Your task to perform on an android device: Open Chrome and go to settings Image 0: 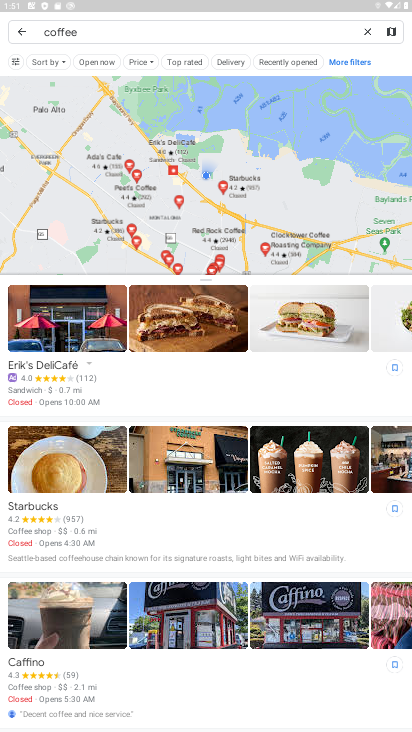
Step 0: press home button
Your task to perform on an android device: Open Chrome and go to settings Image 1: 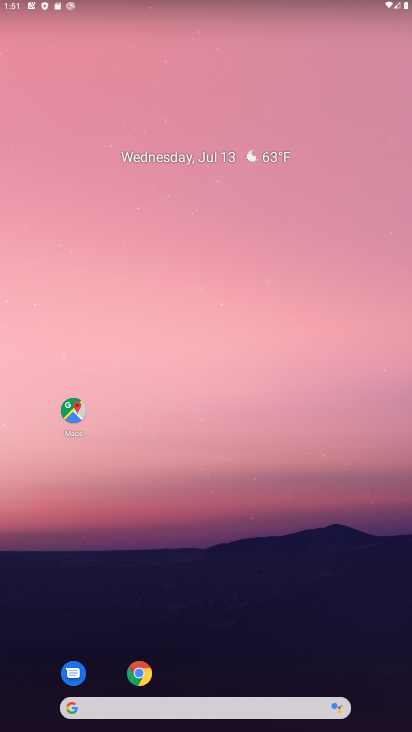
Step 1: drag from (201, 556) to (274, 254)
Your task to perform on an android device: Open Chrome and go to settings Image 2: 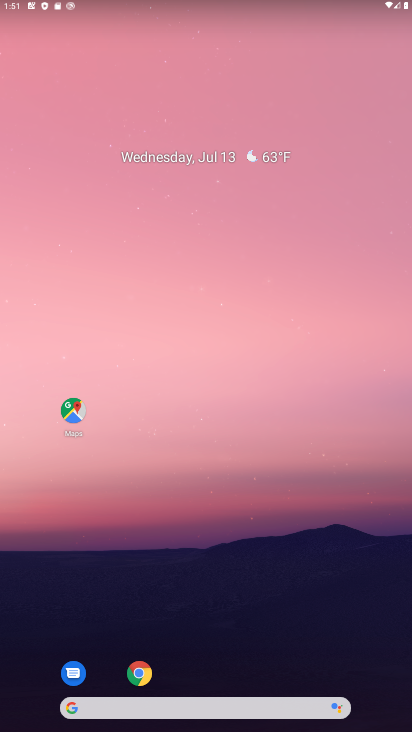
Step 2: drag from (255, 652) to (293, 206)
Your task to perform on an android device: Open Chrome and go to settings Image 3: 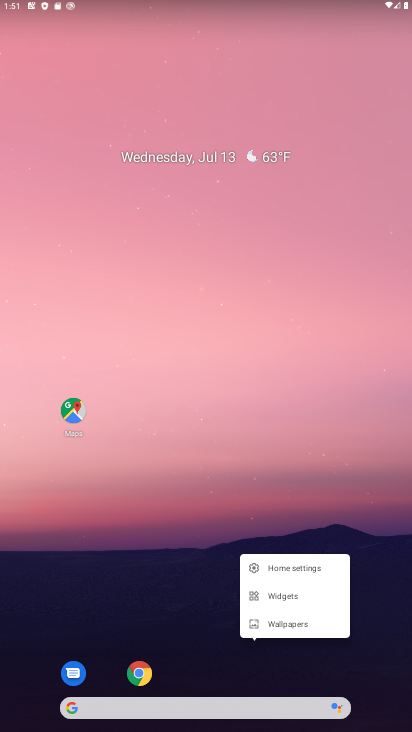
Step 3: click (165, 498)
Your task to perform on an android device: Open Chrome and go to settings Image 4: 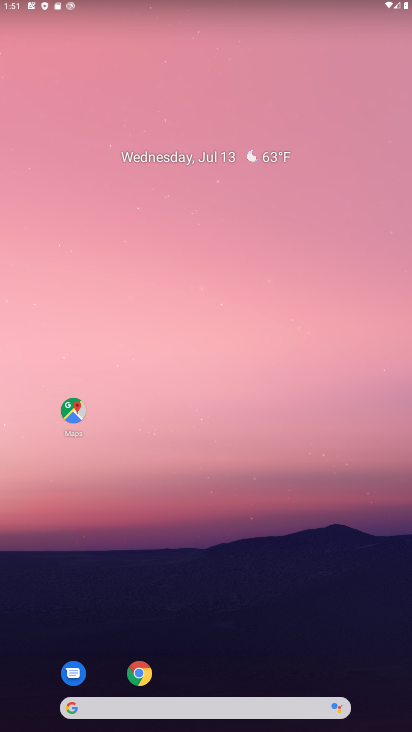
Step 4: drag from (194, 599) to (220, 292)
Your task to perform on an android device: Open Chrome and go to settings Image 5: 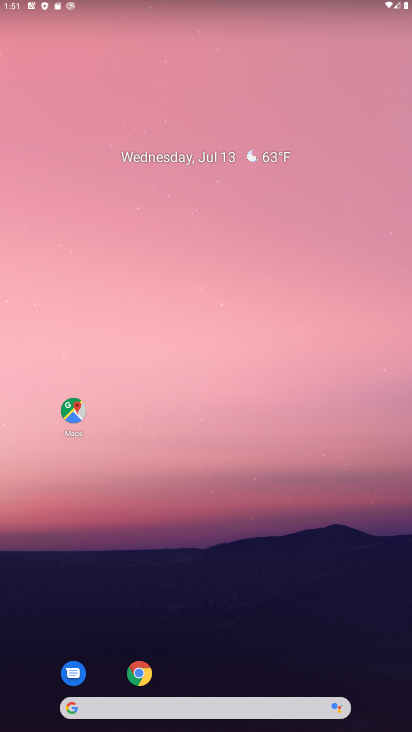
Step 5: drag from (263, 664) to (270, 146)
Your task to perform on an android device: Open Chrome and go to settings Image 6: 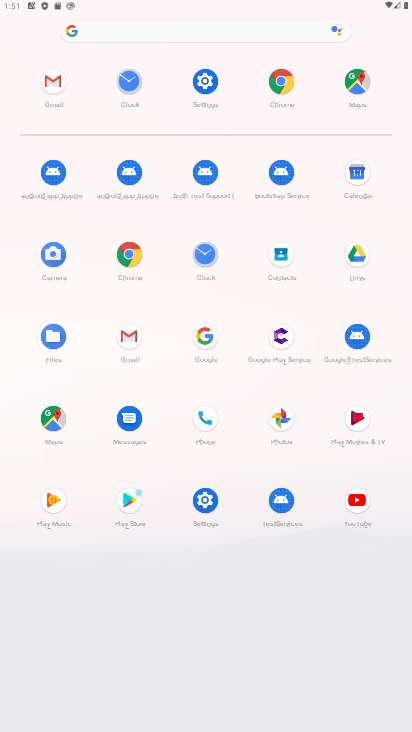
Step 6: click (279, 75)
Your task to perform on an android device: Open Chrome and go to settings Image 7: 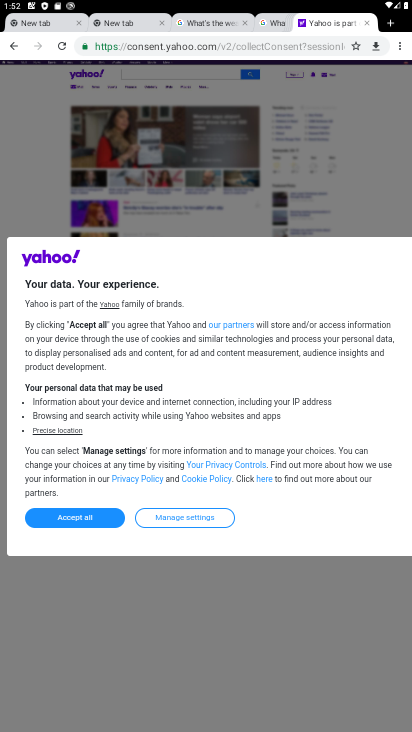
Step 7: click (405, 42)
Your task to perform on an android device: Open Chrome and go to settings Image 8: 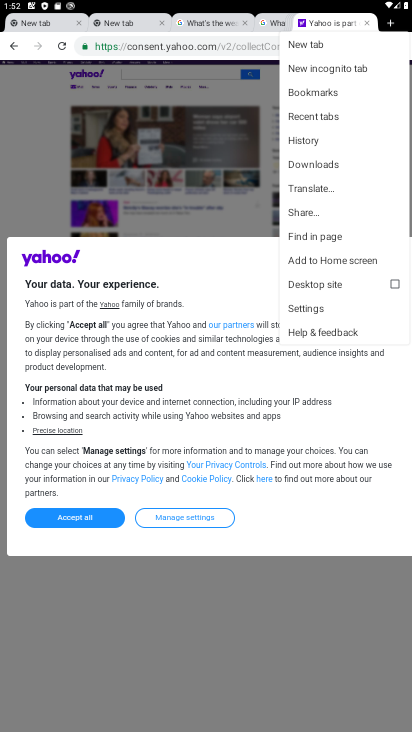
Step 8: click (318, 301)
Your task to perform on an android device: Open Chrome and go to settings Image 9: 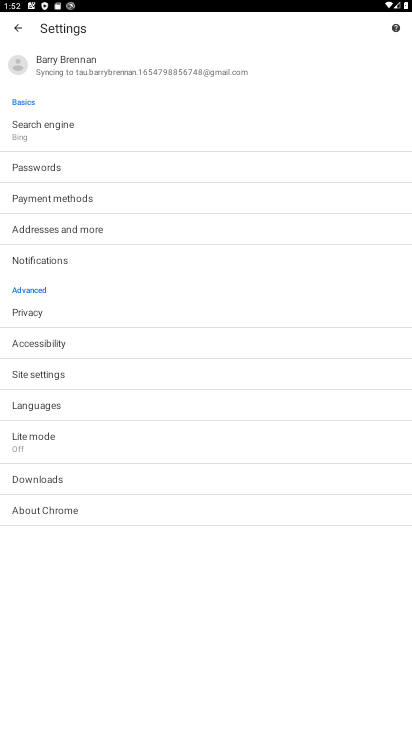
Step 9: task complete